Your task to perform on an android device: Open notification settings Image 0: 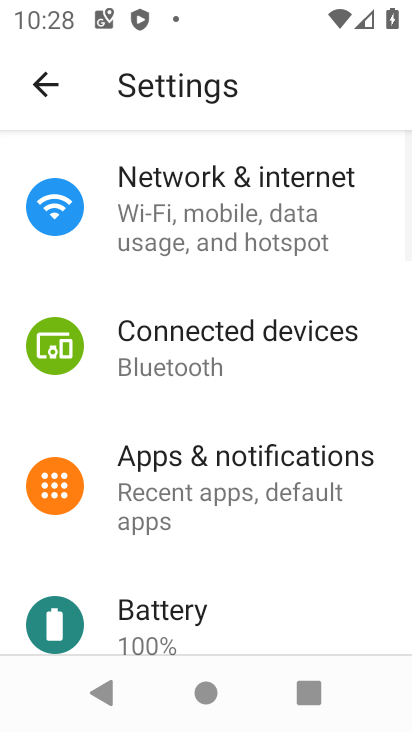
Step 0: press home button
Your task to perform on an android device: Open notification settings Image 1: 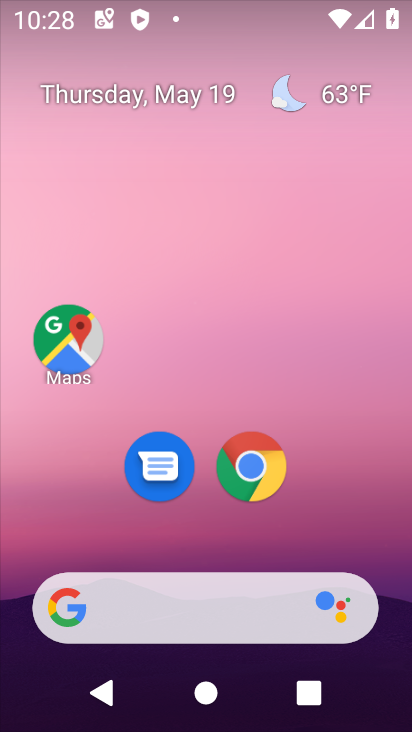
Step 1: drag from (394, 610) to (284, 20)
Your task to perform on an android device: Open notification settings Image 2: 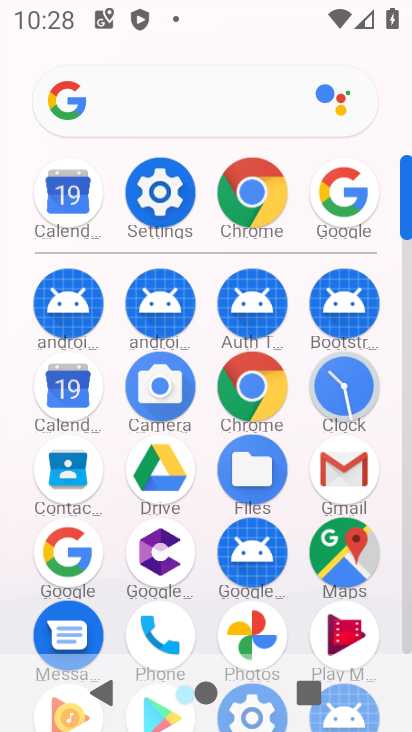
Step 2: click (150, 198)
Your task to perform on an android device: Open notification settings Image 3: 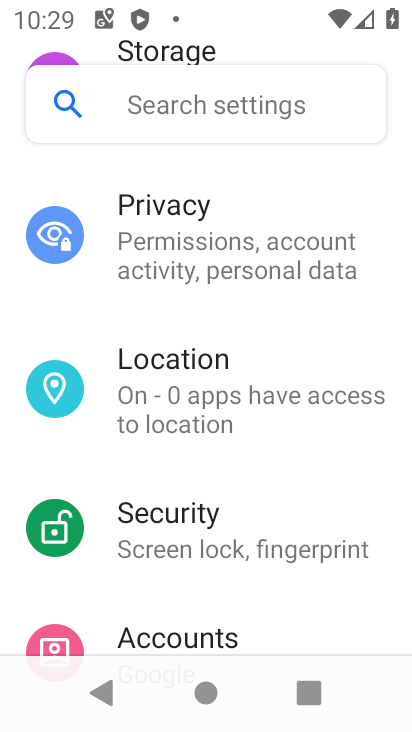
Step 3: drag from (249, 243) to (215, 616)
Your task to perform on an android device: Open notification settings Image 4: 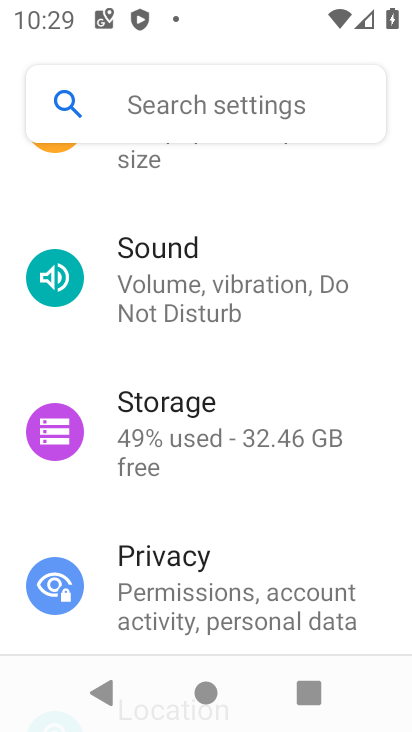
Step 4: drag from (290, 264) to (234, 641)
Your task to perform on an android device: Open notification settings Image 5: 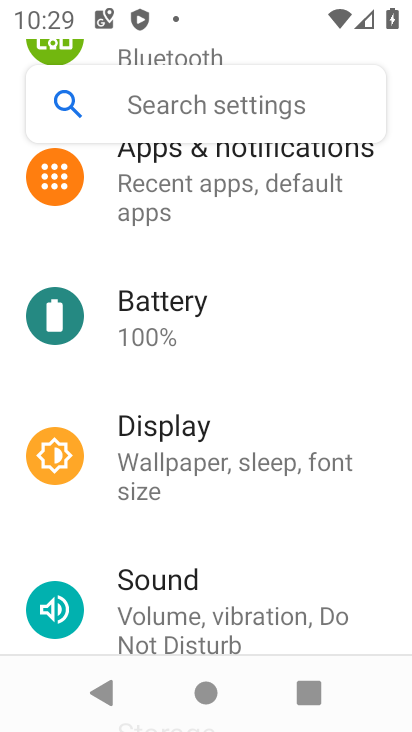
Step 5: click (241, 203)
Your task to perform on an android device: Open notification settings Image 6: 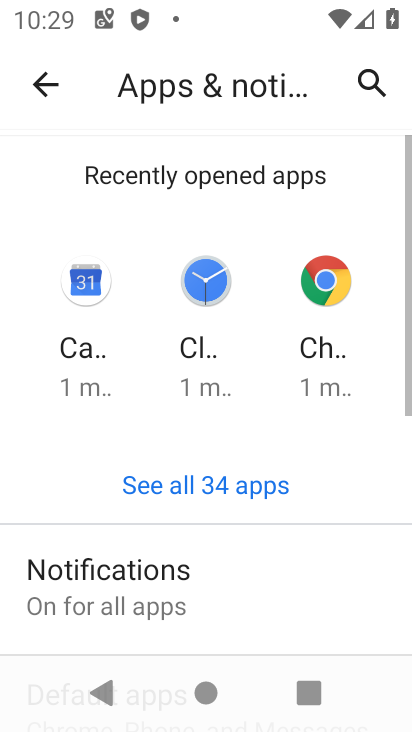
Step 6: click (192, 580)
Your task to perform on an android device: Open notification settings Image 7: 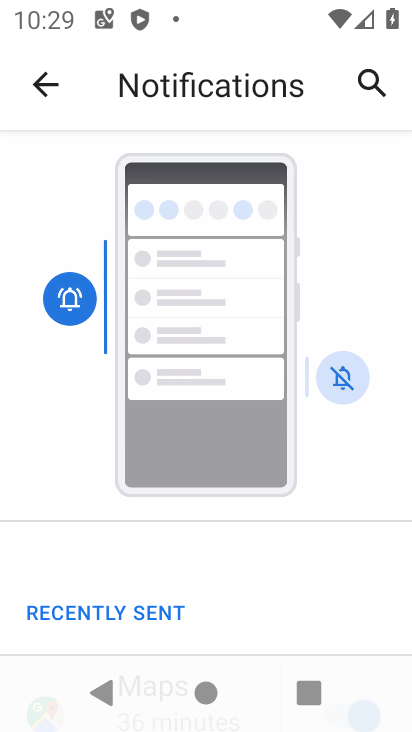
Step 7: task complete